Your task to perform on an android device: turn off data saver in the chrome app Image 0: 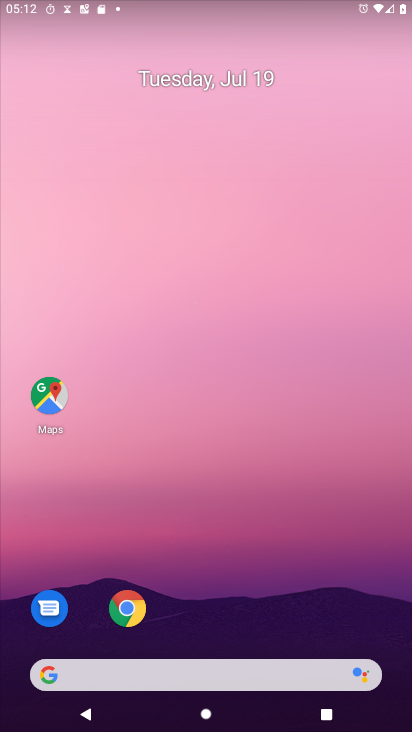
Step 0: click (126, 608)
Your task to perform on an android device: turn off data saver in the chrome app Image 1: 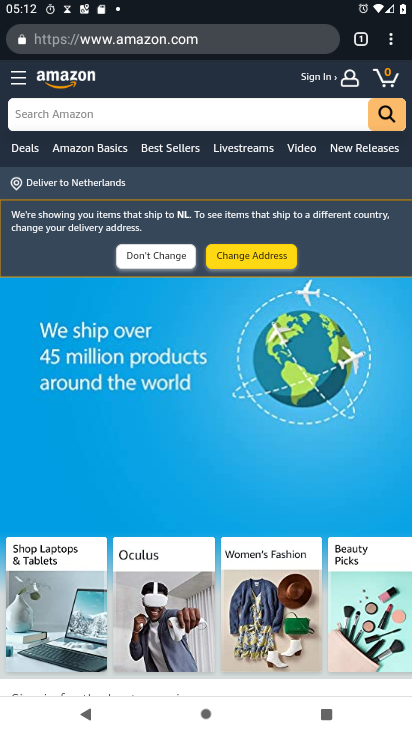
Step 1: click (391, 42)
Your task to perform on an android device: turn off data saver in the chrome app Image 2: 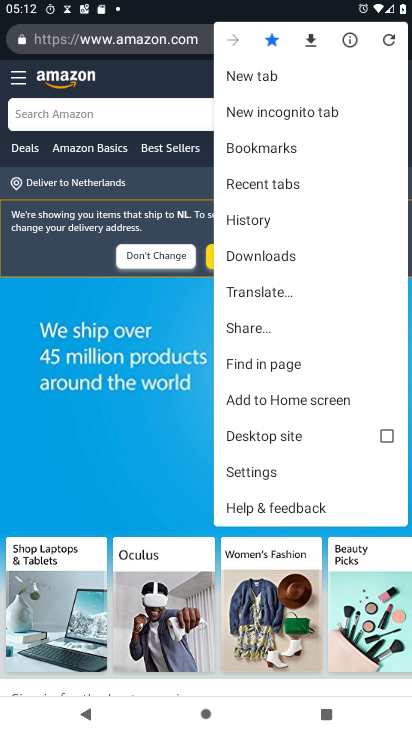
Step 2: click (254, 468)
Your task to perform on an android device: turn off data saver in the chrome app Image 3: 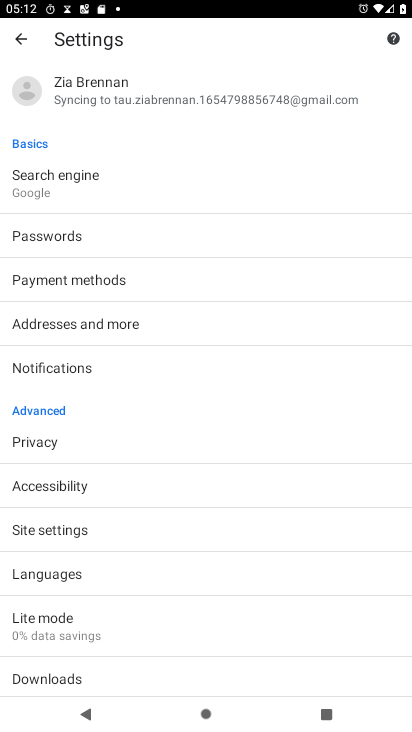
Step 3: click (53, 624)
Your task to perform on an android device: turn off data saver in the chrome app Image 4: 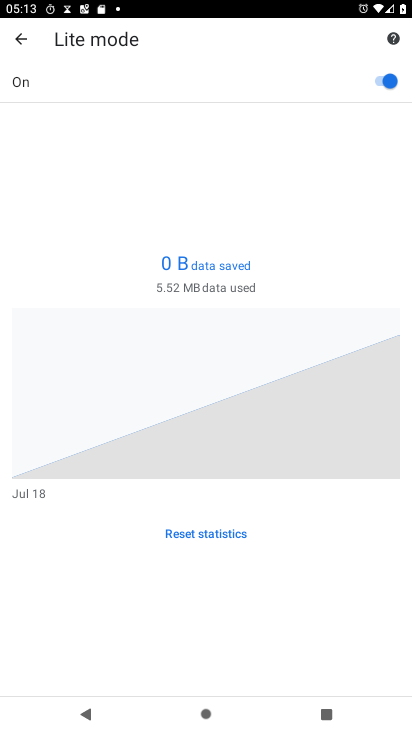
Step 4: click (382, 81)
Your task to perform on an android device: turn off data saver in the chrome app Image 5: 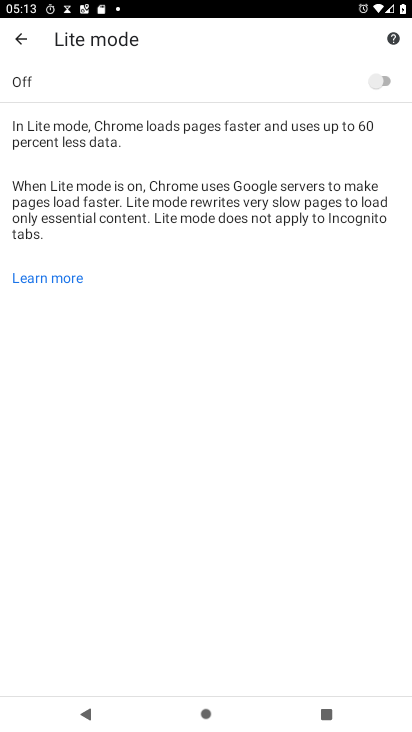
Step 5: task complete